Your task to perform on an android device: add a contact Image 0: 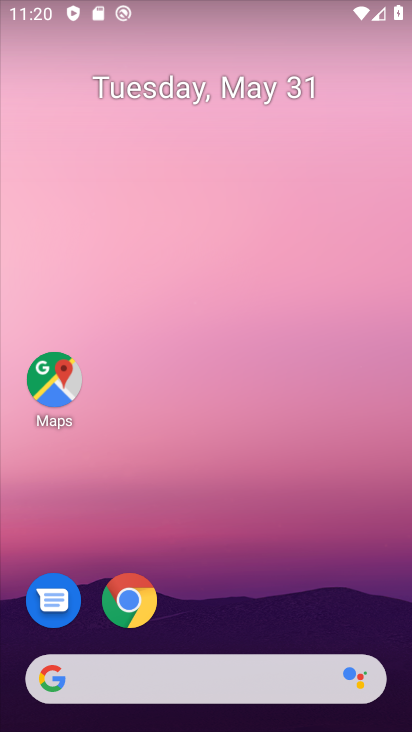
Step 0: drag from (348, 607) to (333, 116)
Your task to perform on an android device: add a contact Image 1: 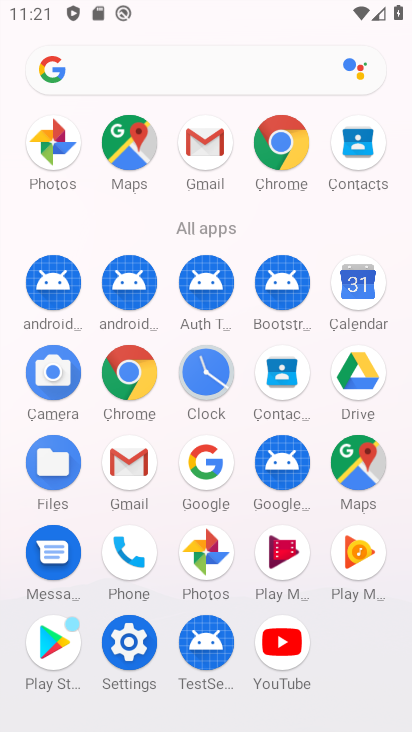
Step 1: click (293, 385)
Your task to perform on an android device: add a contact Image 2: 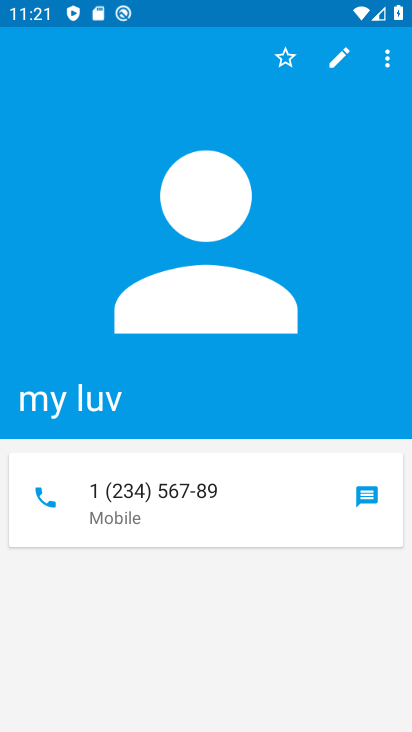
Step 2: press back button
Your task to perform on an android device: add a contact Image 3: 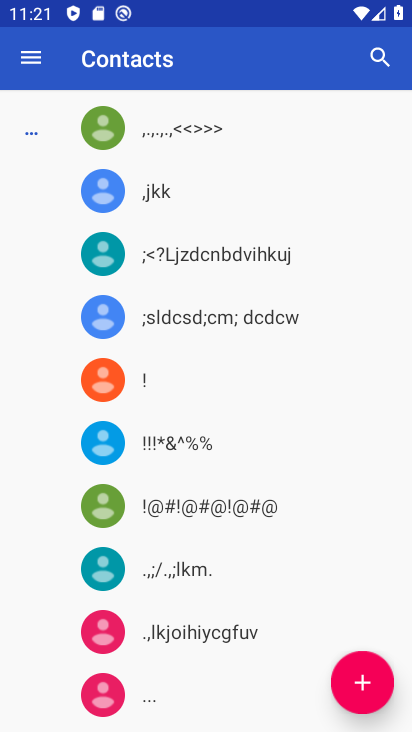
Step 3: click (376, 681)
Your task to perform on an android device: add a contact Image 4: 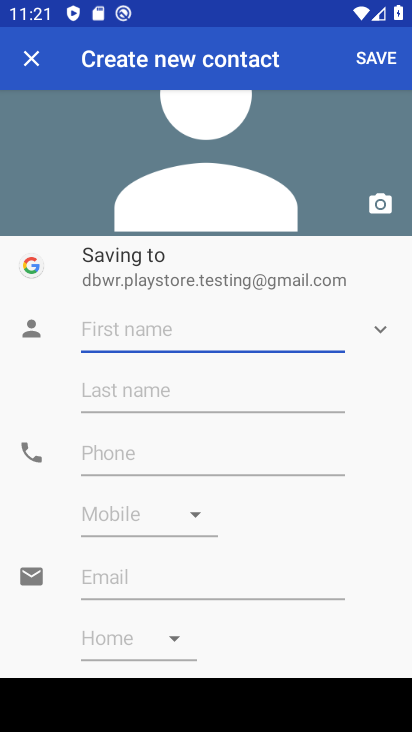
Step 4: click (236, 335)
Your task to perform on an android device: add a contact Image 5: 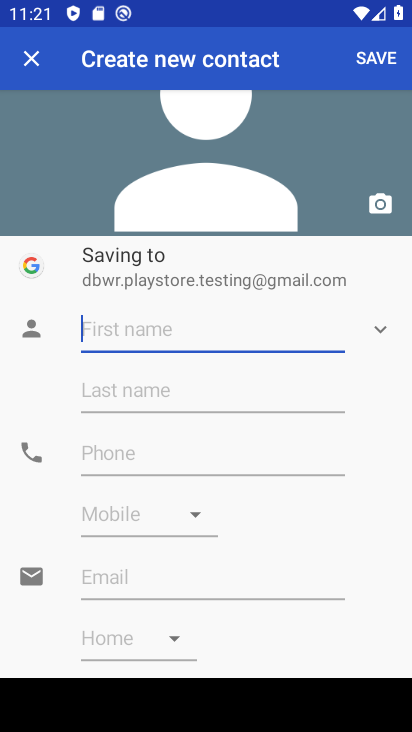
Step 5: type "lollllll"
Your task to perform on an android device: add a contact Image 6: 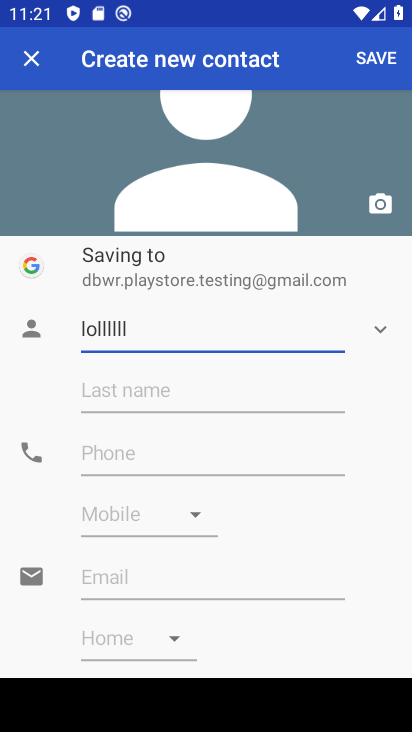
Step 6: click (183, 457)
Your task to perform on an android device: add a contact Image 7: 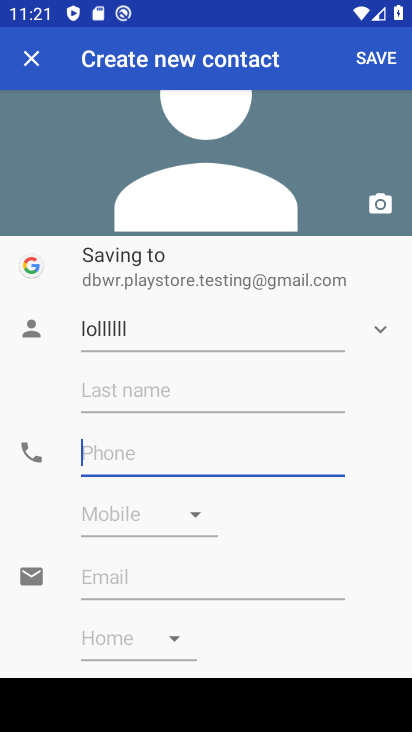
Step 7: type "123456789"
Your task to perform on an android device: add a contact Image 8: 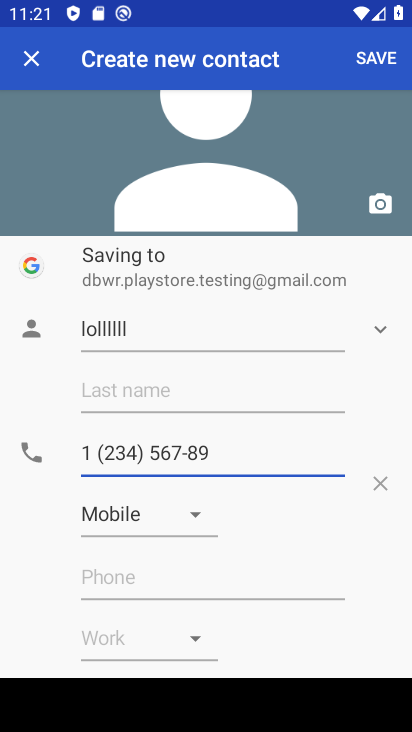
Step 8: click (381, 60)
Your task to perform on an android device: add a contact Image 9: 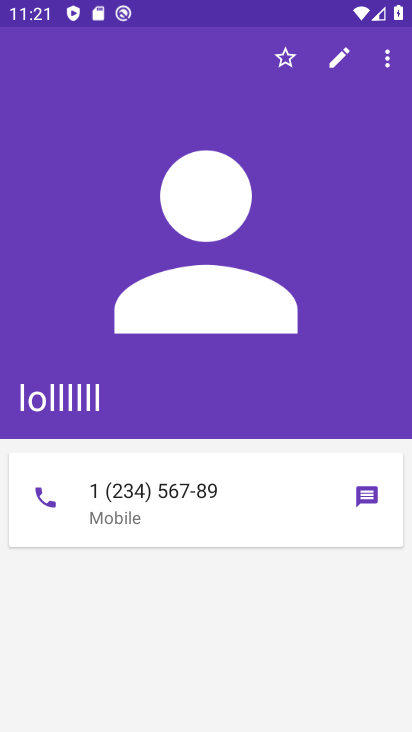
Step 9: task complete